Your task to perform on an android device: delete browsing data in the chrome app Image 0: 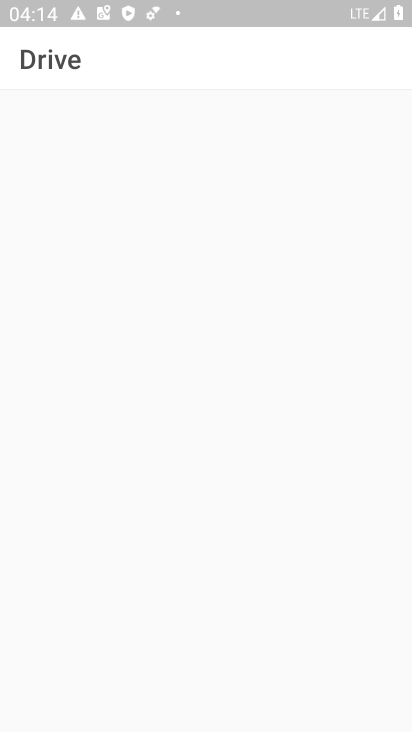
Step 0: press home button
Your task to perform on an android device: delete browsing data in the chrome app Image 1: 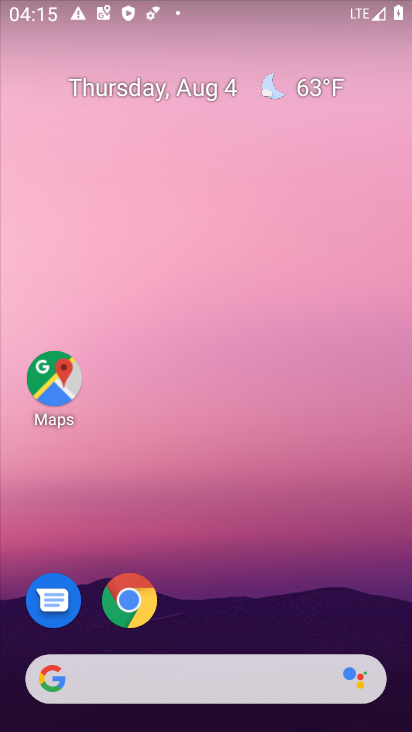
Step 1: drag from (317, 606) to (335, 144)
Your task to perform on an android device: delete browsing data in the chrome app Image 2: 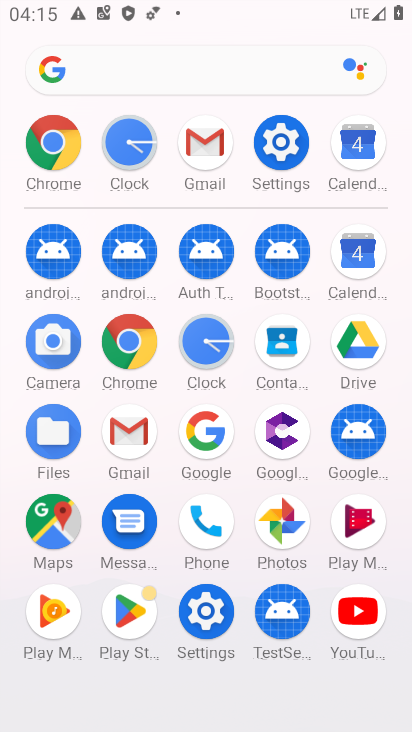
Step 2: click (132, 339)
Your task to perform on an android device: delete browsing data in the chrome app Image 3: 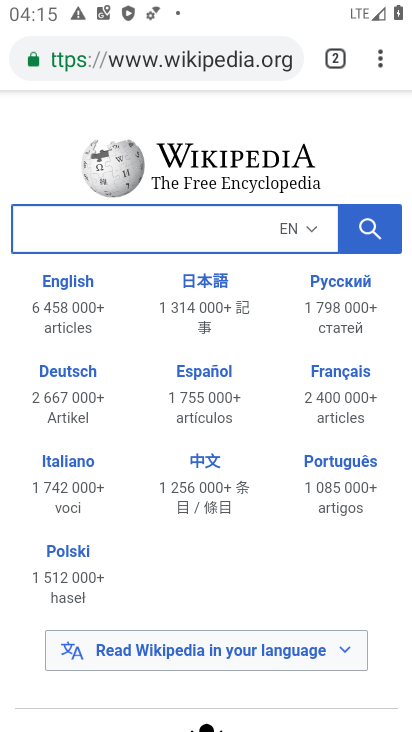
Step 3: drag from (378, 54) to (218, 330)
Your task to perform on an android device: delete browsing data in the chrome app Image 4: 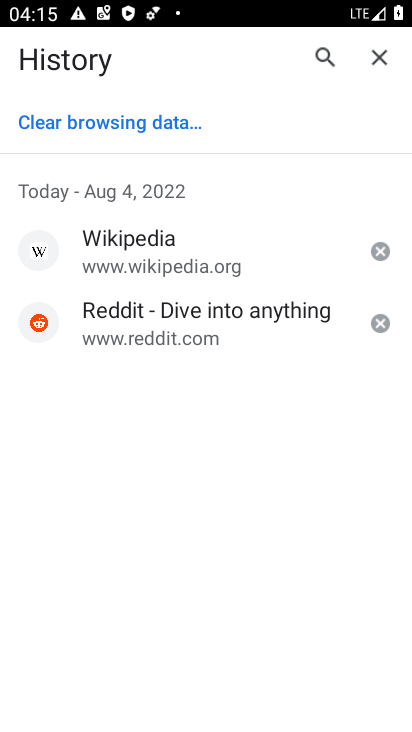
Step 4: click (46, 123)
Your task to perform on an android device: delete browsing data in the chrome app Image 5: 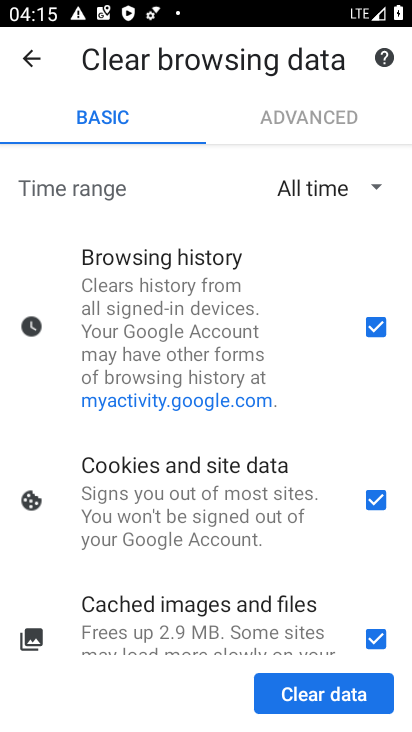
Step 5: click (308, 694)
Your task to perform on an android device: delete browsing data in the chrome app Image 6: 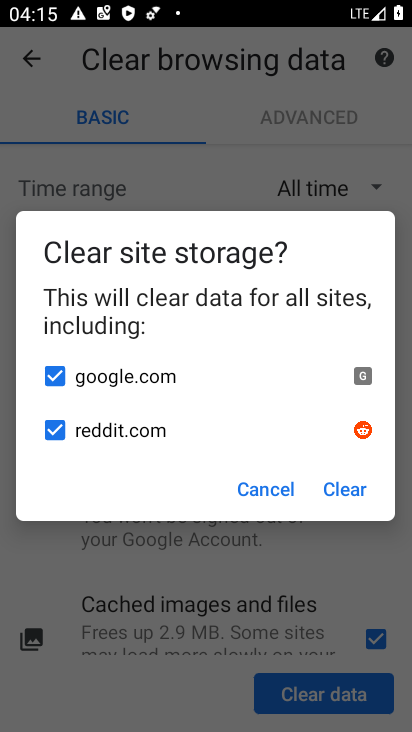
Step 6: click (339, 476)
Your task to perform on an android device: delete browsing data in the chrome app Image 7: 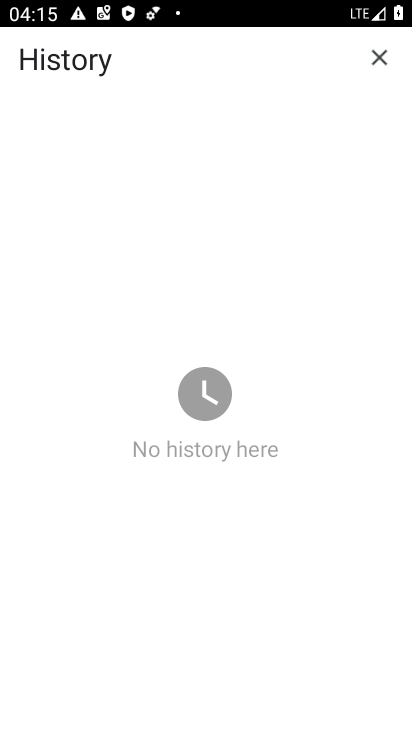
Step 7: task complete